Your task to perform on an android device: Play the new Selena Gomez video on YouTube Image 0: 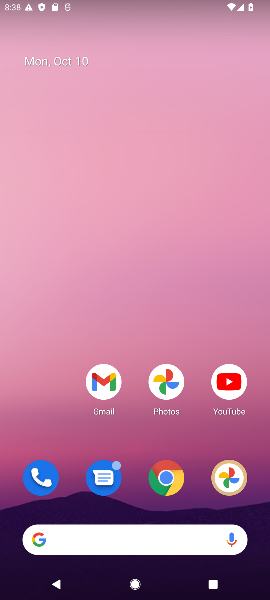
Step 0: click (229, 391)
Your task to perform on an android device: Play the new Selena Gomez video on YouTube Image 1: 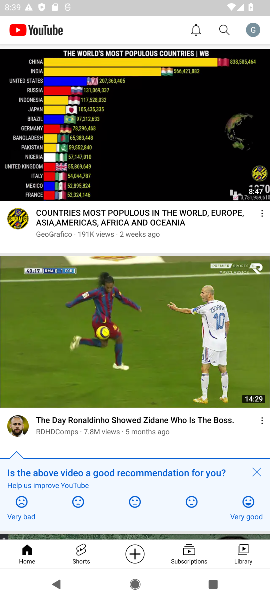
Step 1: click (218, 26)
Your task to perform on an android device: Play the new Selena Gomez video on YouTube Image 2: 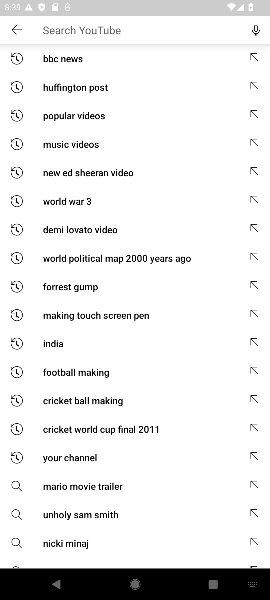
Step 2: click (130, 25)
Your task to perform on an android device: Play the new Selena Gomez video on YouTube Image 3: 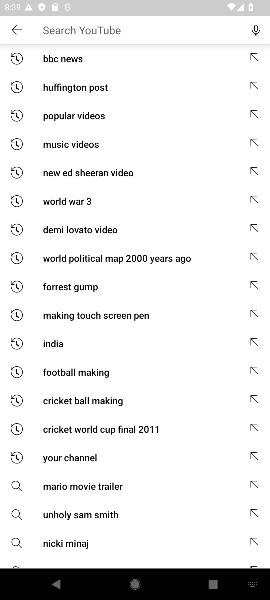
Step 3: click (197, 33)
Your task to perform on an android device: Play the new Selena Gomez video on YouTube Image 4: 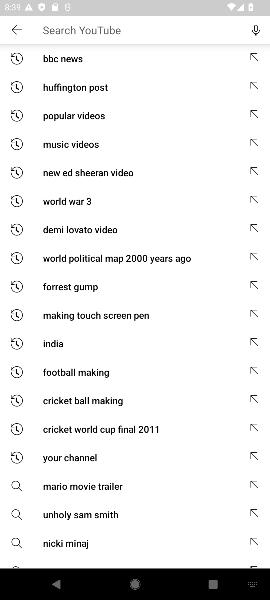
Step 4: click (197, 33)
Your task to perform on an android device: Play the new Selena Gomez video on YouTube Image 5: 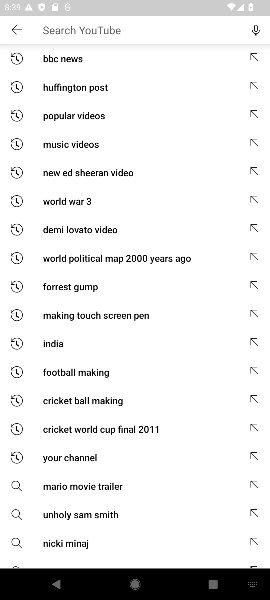
Step 5: click (179, 34)
Your task to perform on an android device: Play the new Selena Gomez video on YouTube Image 6: 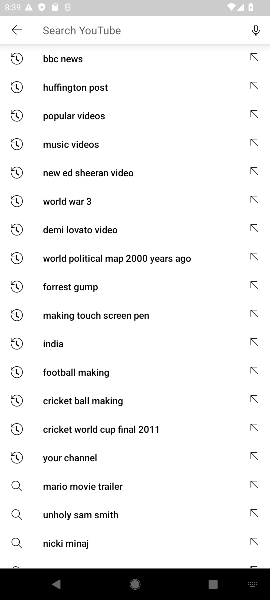
Step 6: click (179, 34)
Your task to perform on an android device: Play the new Selena Gomez video on YouTube Image 7: 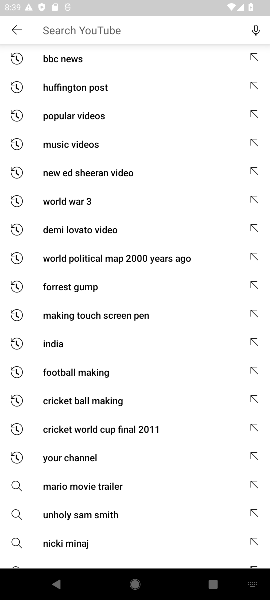
Step 7: click (179, 34)
Your task to perform on an android device: Play the new Selena Gomez video on YouTube Image 8: 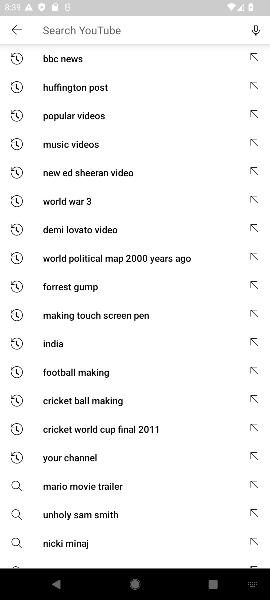
Step 8: type "new Selena Gomez video"
Your task to perform on an android device: Play the new Selena Gomez video on YouTube Image 9: 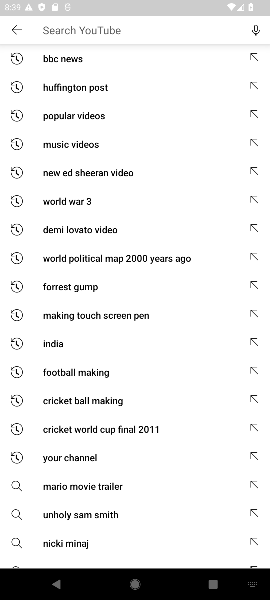
Step 9: click (164, 30)
Your task to perform on an android device: Play the new Selena Gomez video on YouTube Image 10: 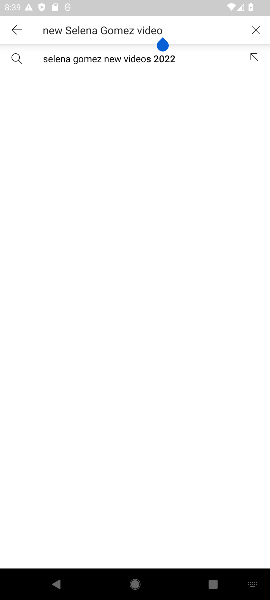
Step 10: click (164, 30)
Your task to perform on an android device: Play the new Selena Gomez video on YouTube Image 11: 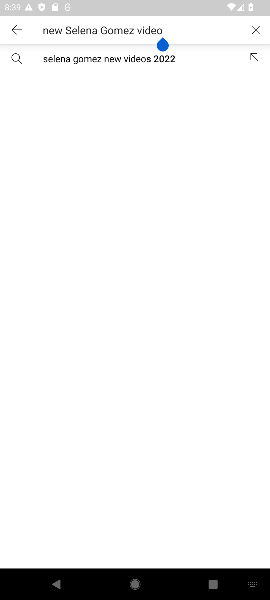
Step 11: click (143, 65)
Your task to perform on an android device: Play the new Selena Gomez video on YouTube Image 12: 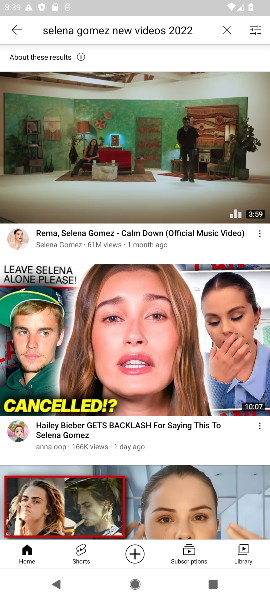
Step 12: click (141, 140)
Your task to perform on an android device: Play the new Selena Gomez video on YouTube Image 13: 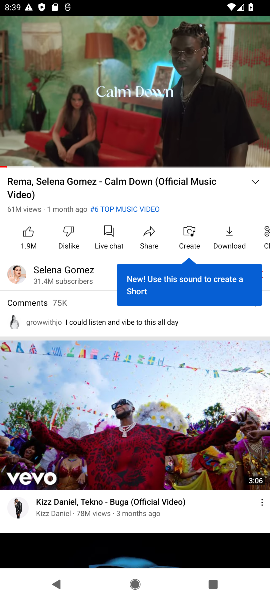
Step 13: task complete